Your task to perform on an android device: turn off translation in the chrome app Image 0: 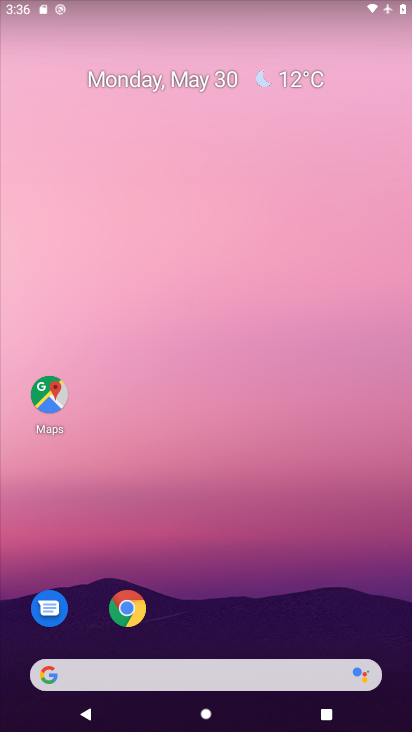
Step 0: click (138, 605)
Your task to perform on an android device: turn off translation in the chrome app Image 1: 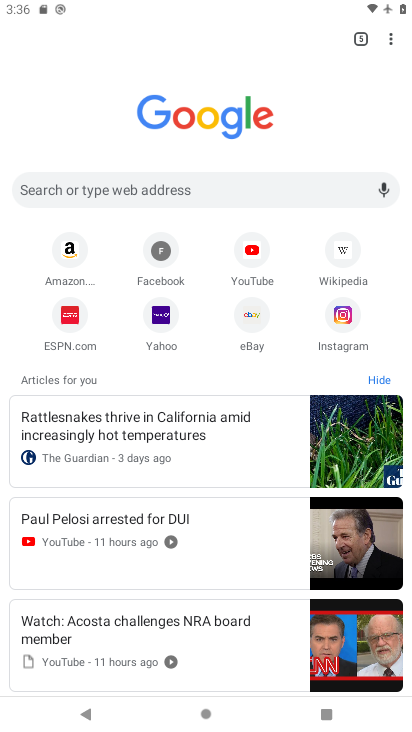
Step 1: click (393, 43)
Your task to perform on an android device: turn off translation in the chrome app Image 2: 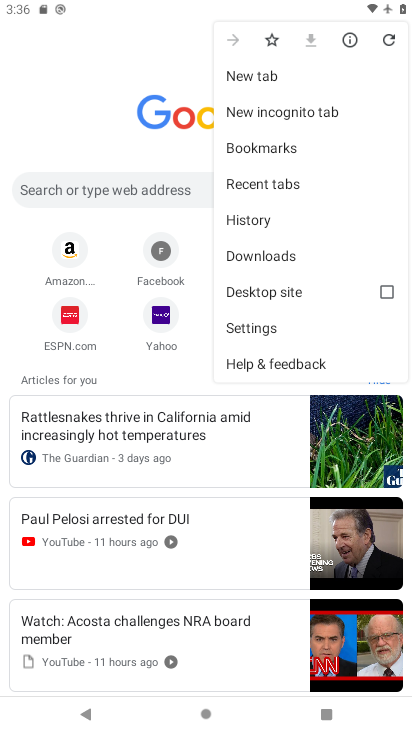
Step 2: click (265, 323)
Your task to perform on an android device: turn off translation in the chrome app Image 3: 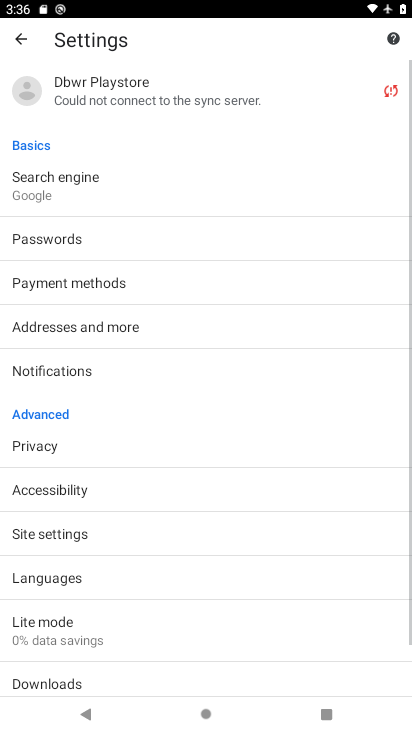
Step 3: click (125, 539)
Your task to perform on an android device: turn off translation in the chrome app Image 4: 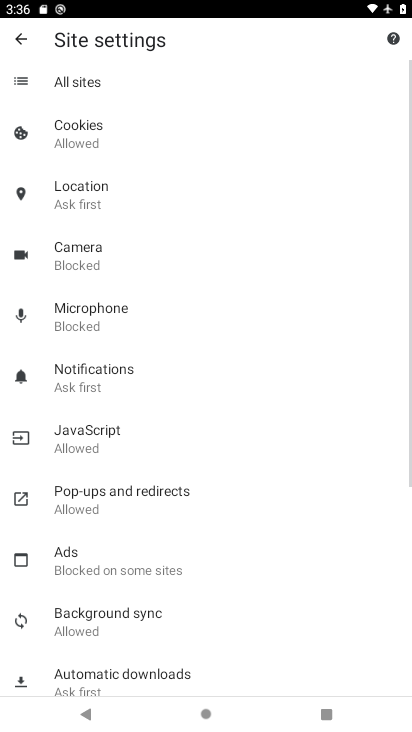
Step 4: click (23, 39)
Your task to perform on an android device: turn off translation in the chrome app Image 5: 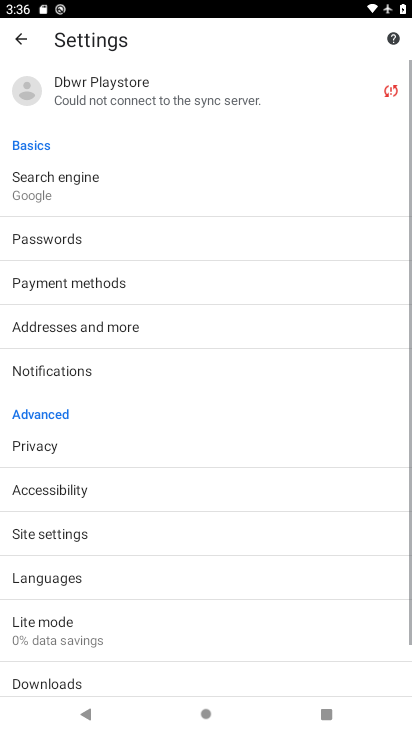
Step 5: click (83, 571)
Your task to perform on an android device: turn off translation in the chrome app Image 6: 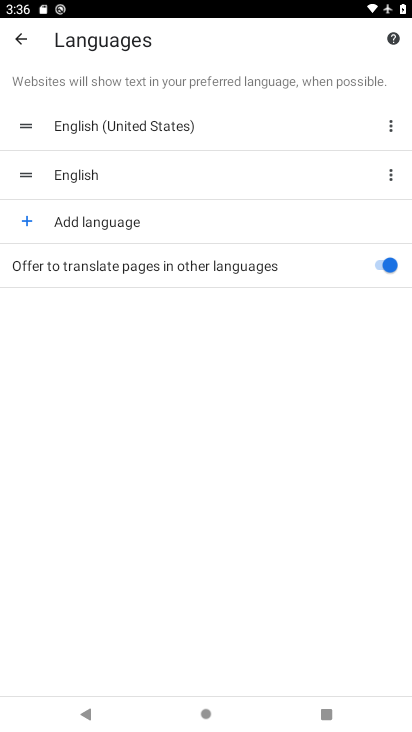
Step 6: click (387, 268)
Your task to perform on an android device: turn off translation in the chrome app Image 7: 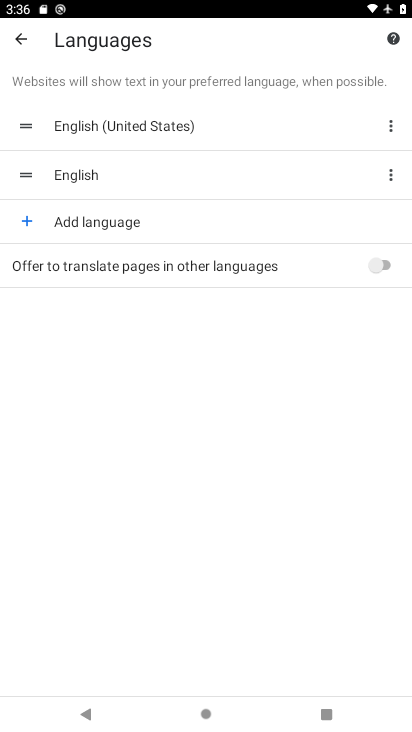
Step 7: task complete